Your task to perform on an android device: open chrome and create a bookmark for the current page Image 0: 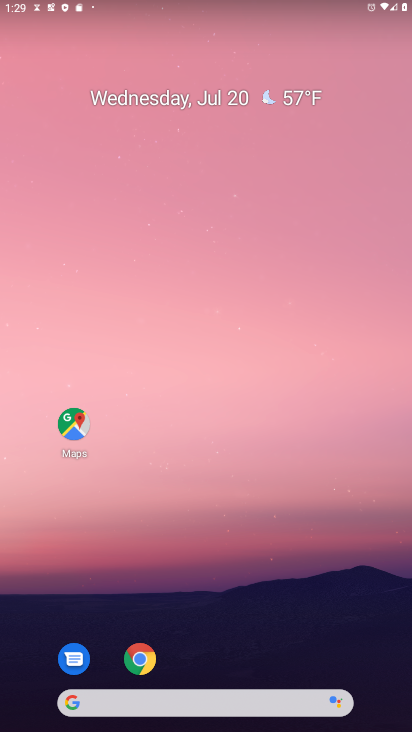
Step 0: press home button
Your task to perform on an android device: open chrome and create a bookmark for the current page Image 1: 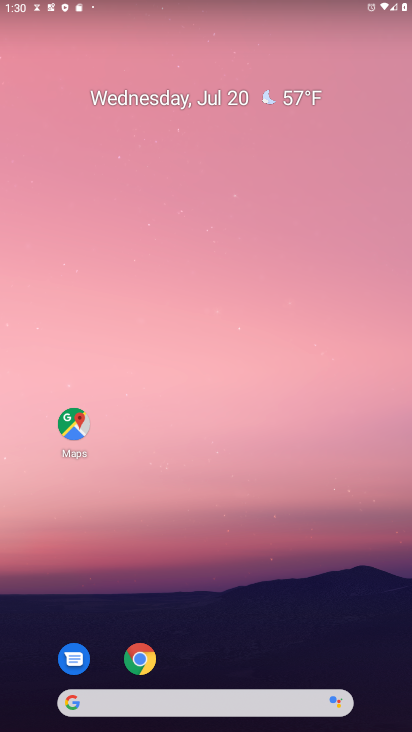
Step 1: click (137, 652)
Your task to perform on an android device: open chrome and create a bookmark for the current page Image 2: 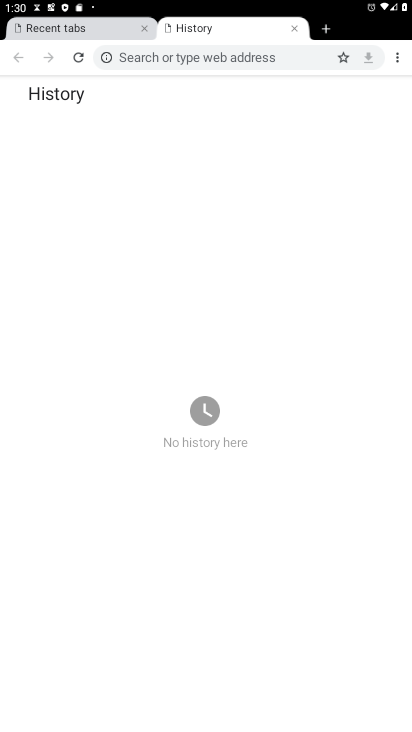
Step 2: click (395, 50)
Your task to perform on an android device: open chrome and create a bookmark for the current page Image 3: 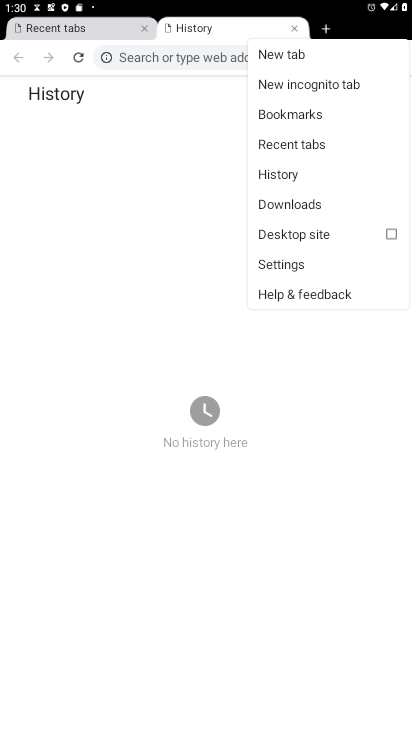
Step 3: click (166, 295)
Your task to perform on an android device: open chrome and create a bookmark for the current page Image 4: 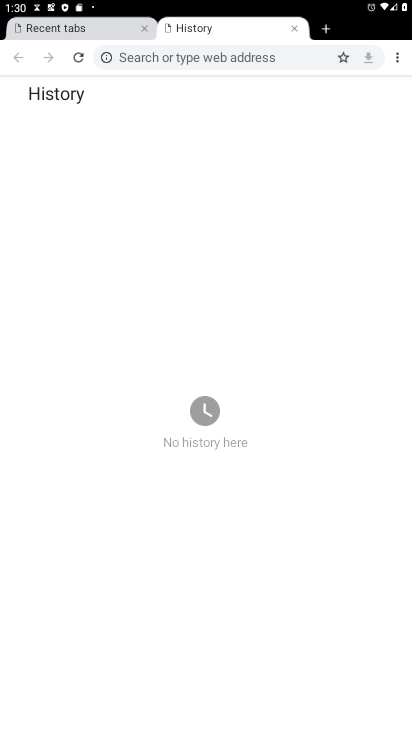
Step 4: click (338, 53)
Your task to perform on an android device: open chrome and create a bookmark for the current page Image 5: 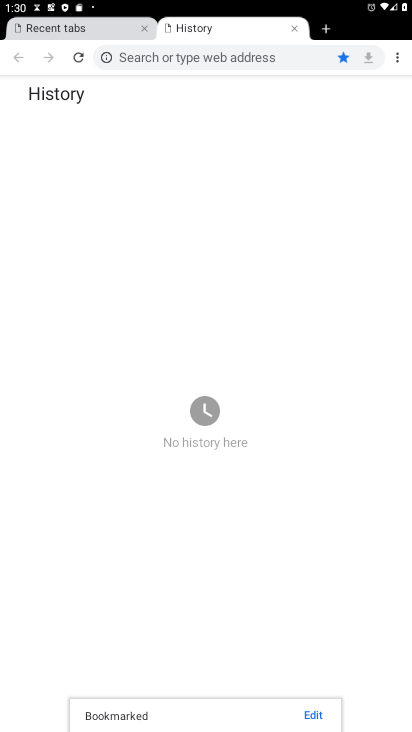
Step 5: task complete